Your task to perform on an android device: Empty the shopping cart on amazon. Image 0: 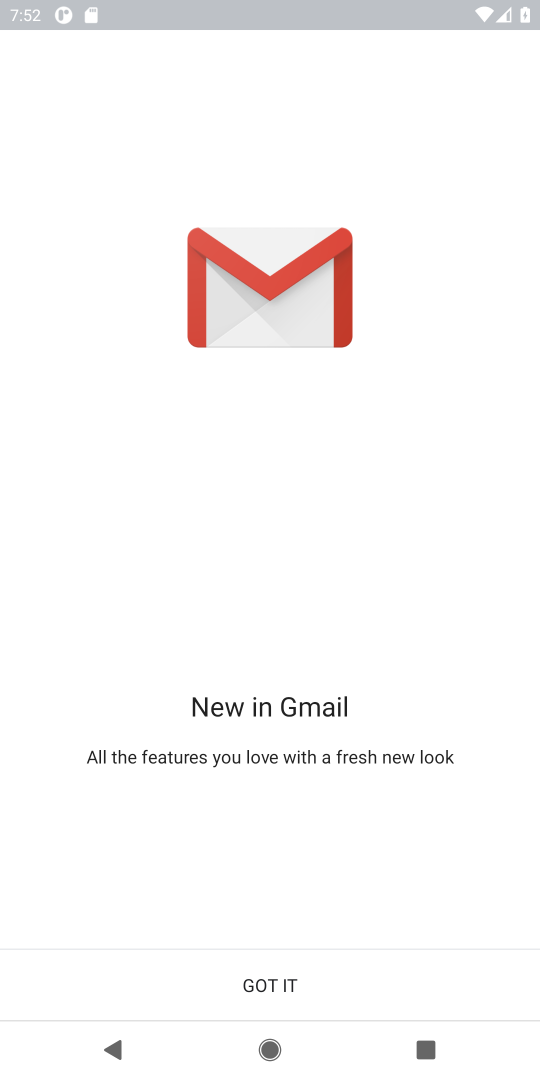
Step 0: press home button
Your task to perform on an android device: Empty the shopping cart on amazon. Image 1: 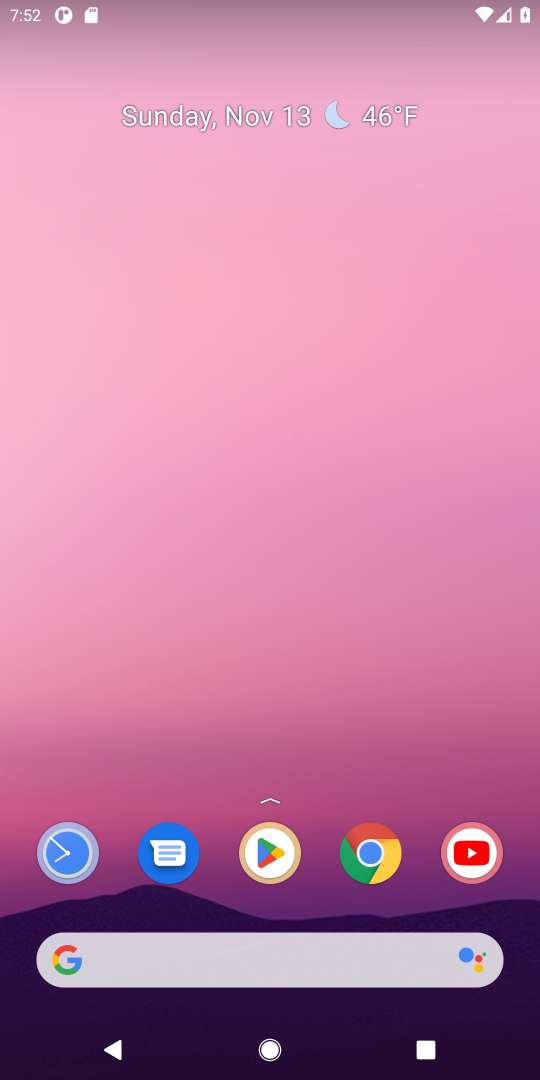
Step 1: click (86, 956)
Your task to perform on an android device: Empty the shopping cart on amazon. Image 2: 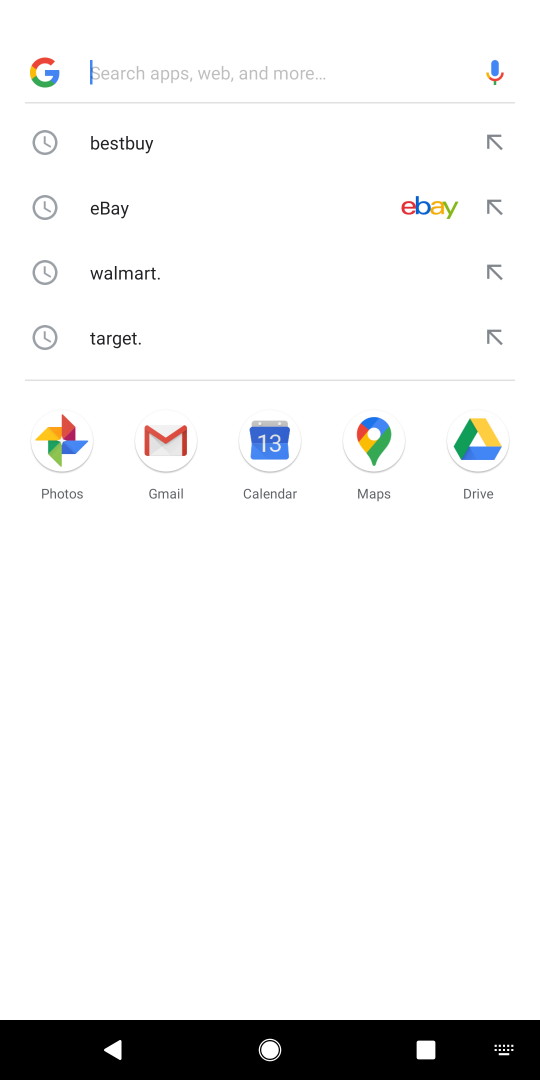
Step 2: type "amazon"
Your task to perform on an android device: Empty the shopping cart on amazon. Image 3: 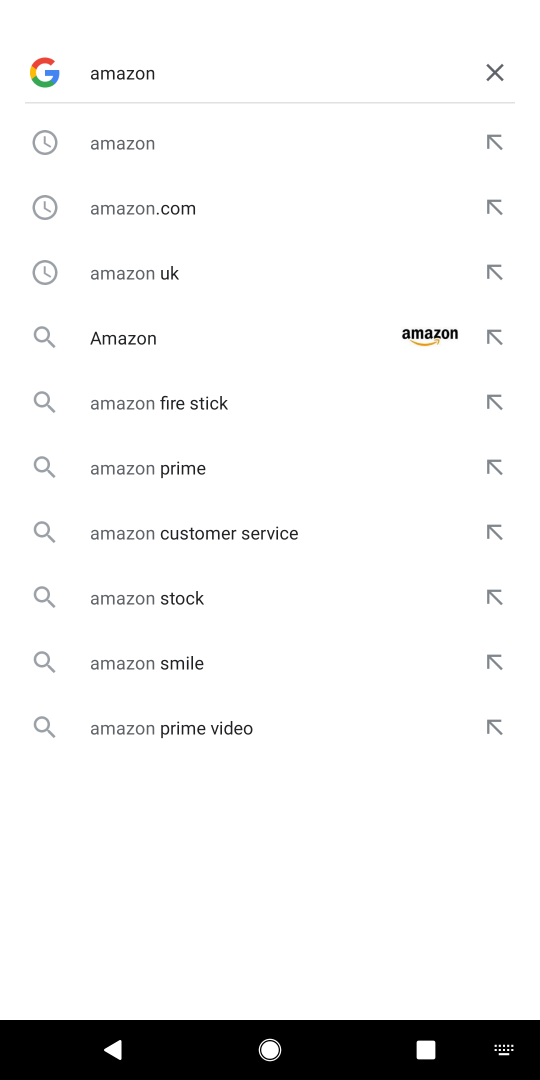
Step 3: press enter
Your task to perform on an android device: Empty the shopping cart on amazon. Image 4: 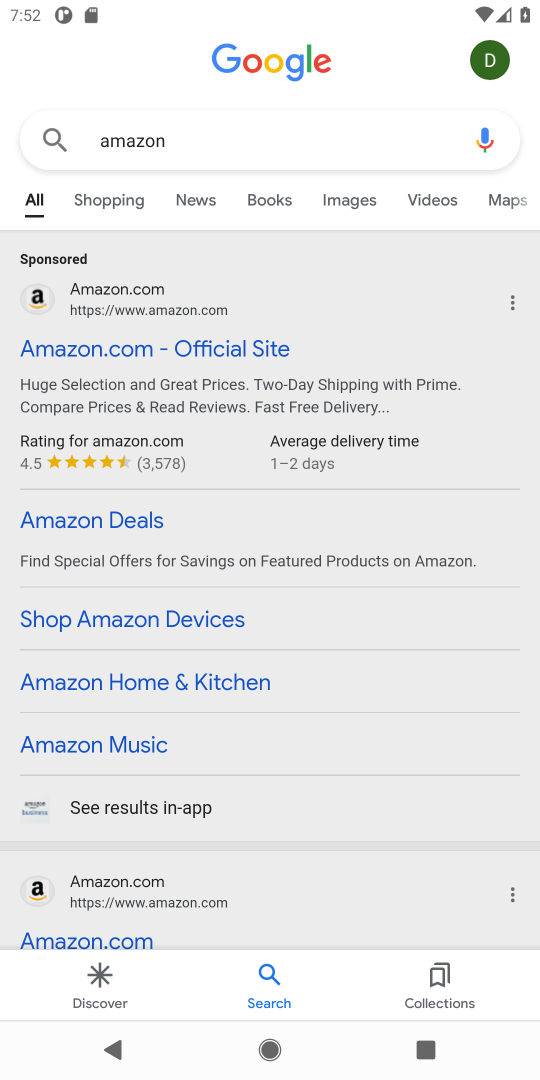
Step 4: click (210, 345)
Your task to perform on an android device: Empty the shopping cart on amazon. Image 5: 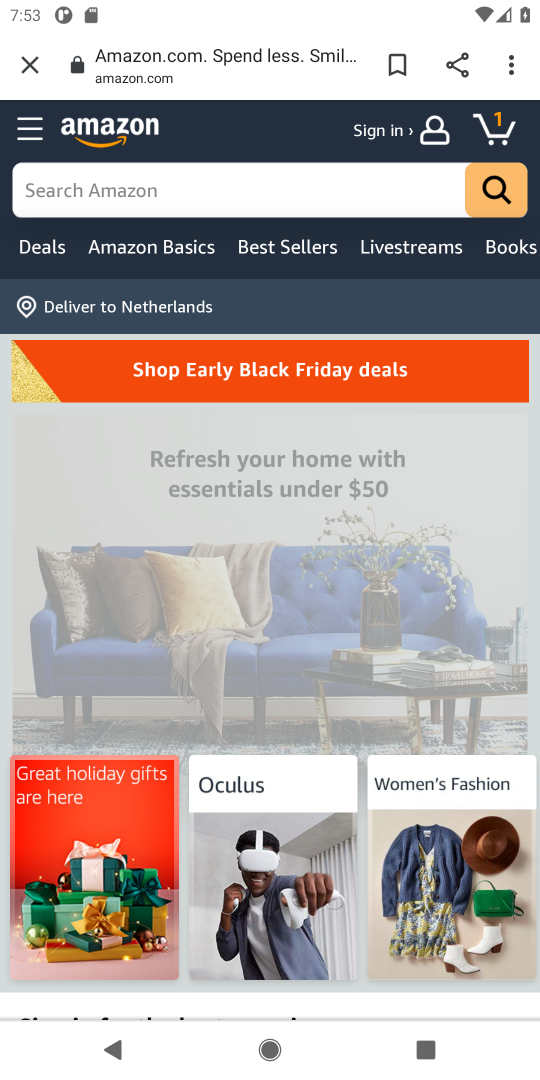
Step 5: click (492, 119)
Your task to perform on an android device: Empty the shopping cart on amazon. Image 6: 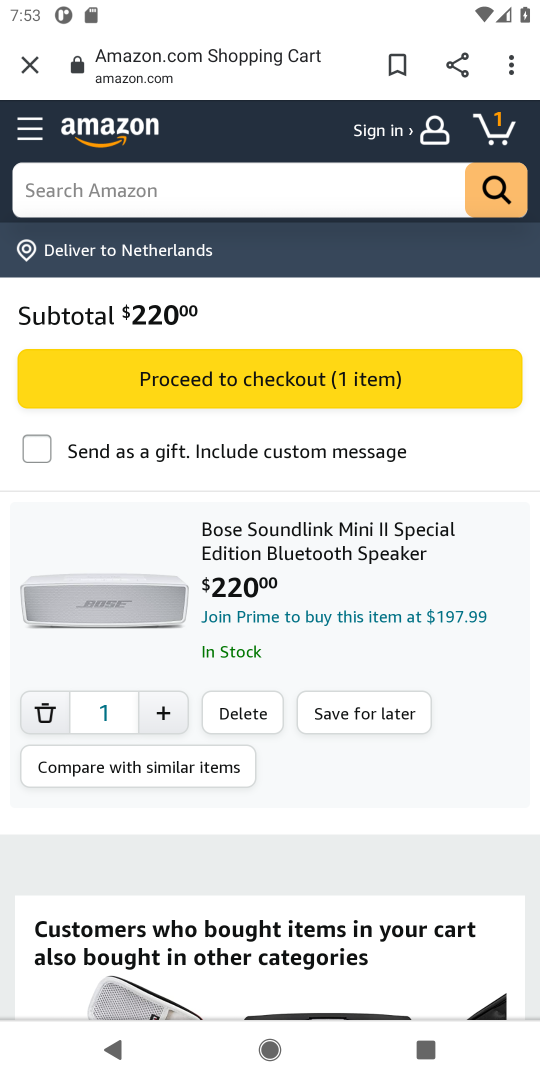
Step 6: click (42, 712)
Your task to perform on an android device: Empty the shopping cart on amazon. Image 7: 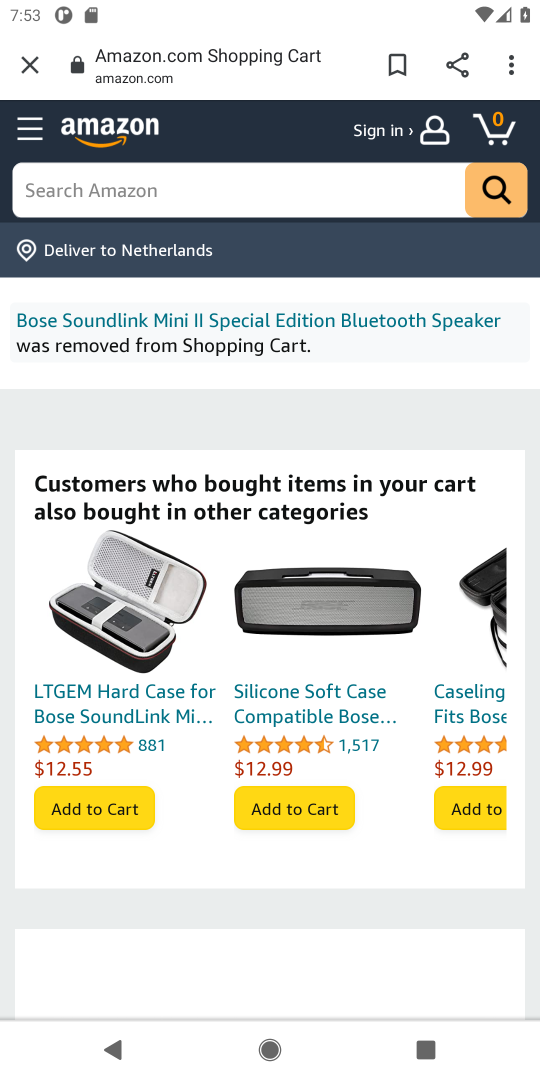
Step 7: task complete